Your task to perform on an android device: stop showing notifications on the lock screen Image 0: 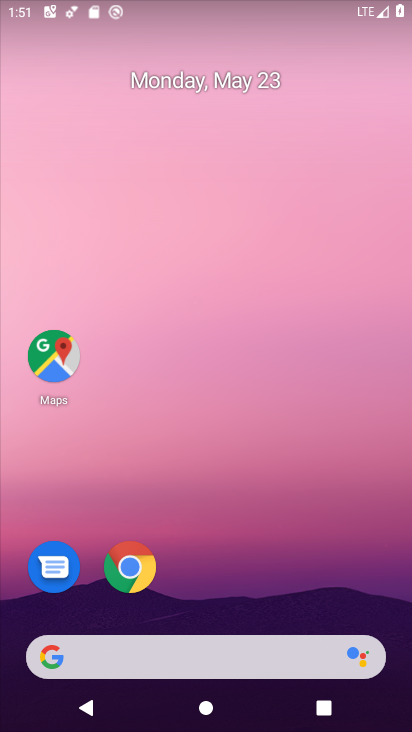
Step 0: drag from (267, 607) to (231, 172)
Your task to perform on an android device: stop showing notifications on the lock screen Image 1: 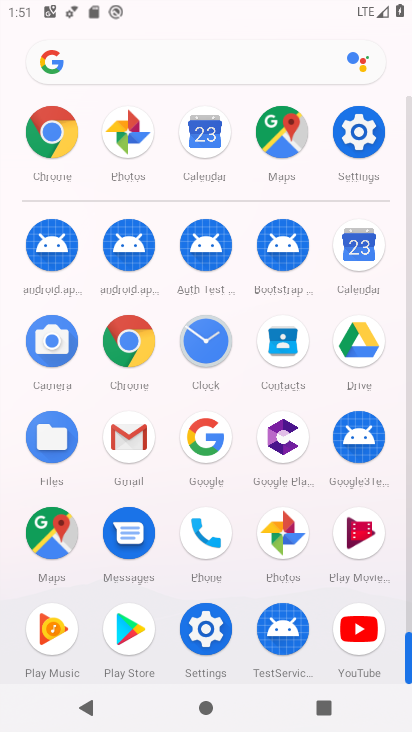
Step 1: click (349, 147)
Your task to perform on an android device: stop showing notifications on the lock screen Image 2: 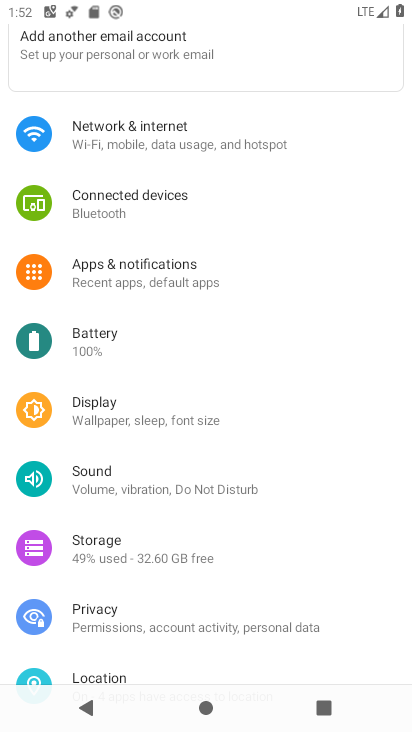
Step 2: click (172, 262)
Your task to perform on an android device: stop showing notifications on the lock screen Image 3: 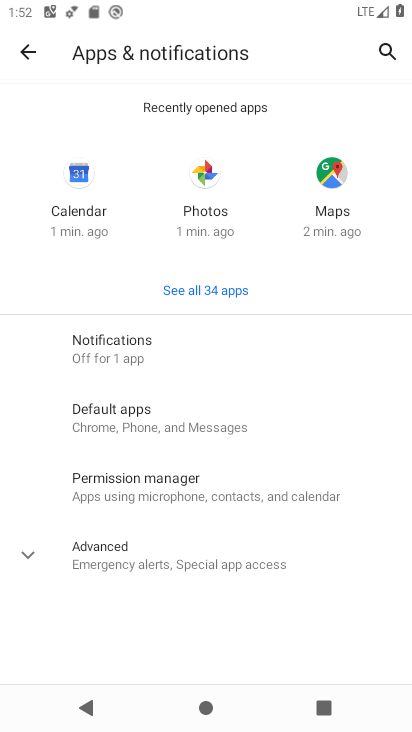
Step 3: click (244, 352)
Your task to perform on an android device: stop showing notifications on the lock screen Image 4: 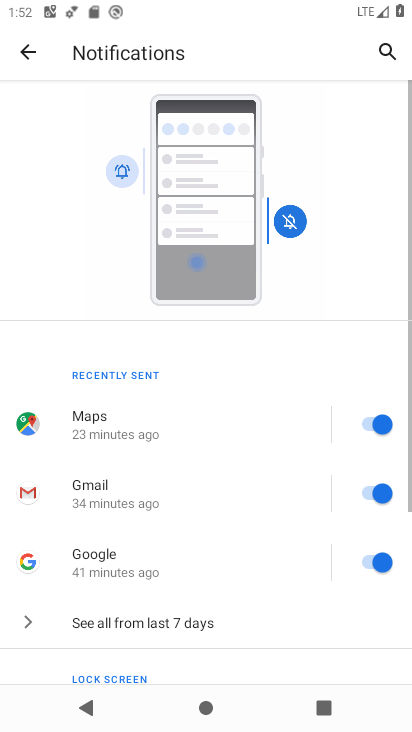
Step 4: drag from (260, 426) to (266, 200)
Your task to perform on an android device: stop showing notifications on the lock screen Image 5: 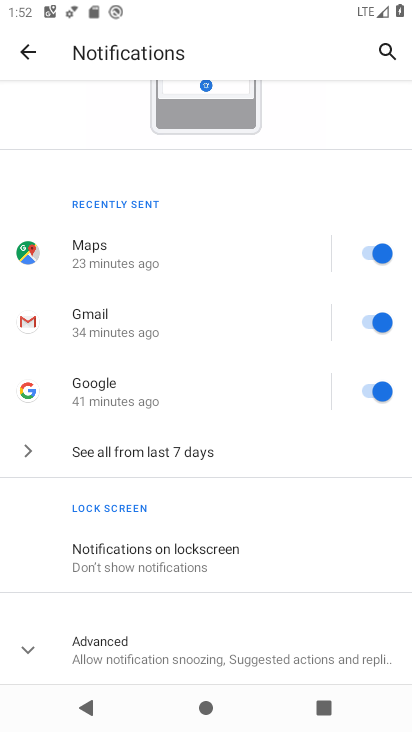
Step 5: click (179, 563)
Your task to perform on an android device: stop showing notifications on the lock screen Image 6: 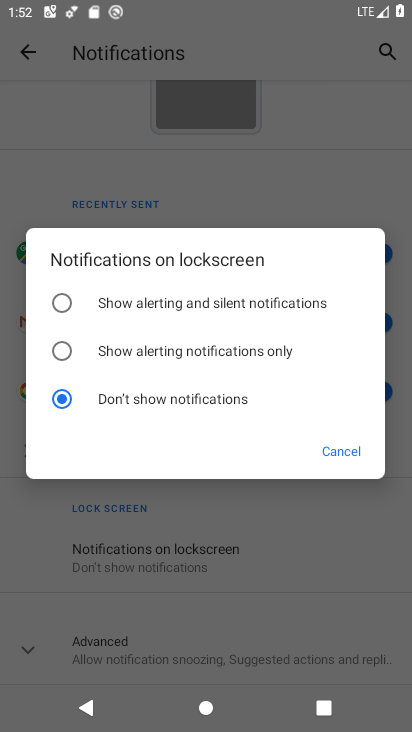
Step 6: task complete